Your task to perform on an android device: turn off notifications settings in the gmail app Image 0: 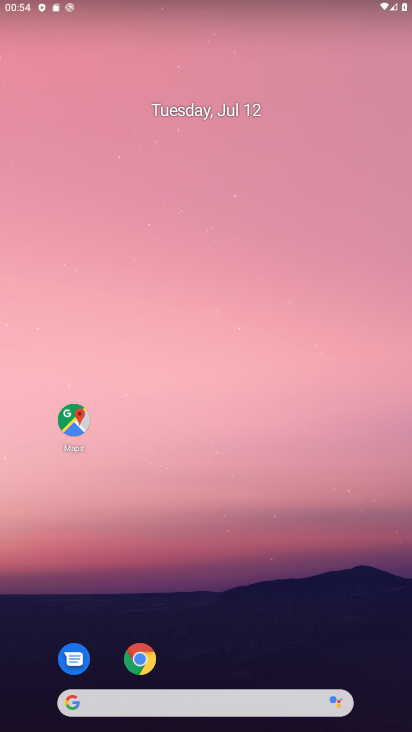
Step 0: drag from (203, 614) to (272, 5)
Your task to perform on an android device: turn off notifications settings in the gmail app Image 1: 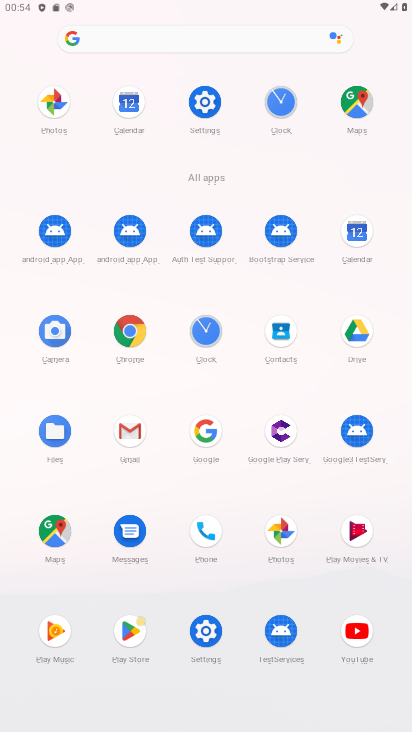
Step 1: click (121, 425)
Your task to perform on an android device: turn off notifications settings in the gmail app Image 2: 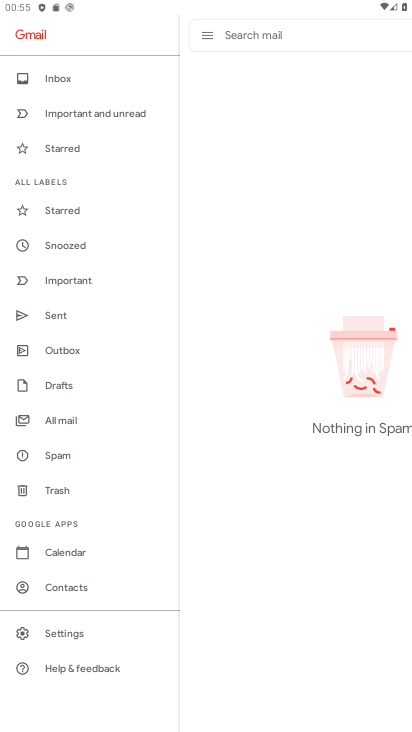
Step 2: drag from (94, 576) to (74, 215)
Your task to perform on an android device: turn off notifications settings in the gmail app Image 3: 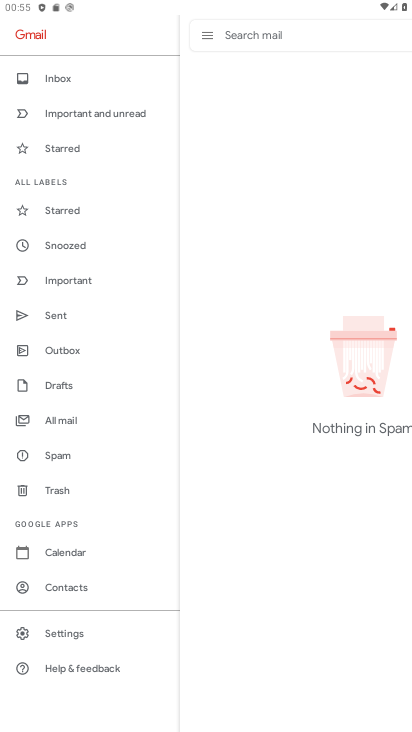
Step 3: click (65, 628)
Your task to perform on an android device: turn off notifications settings in the gmail app Image 4: 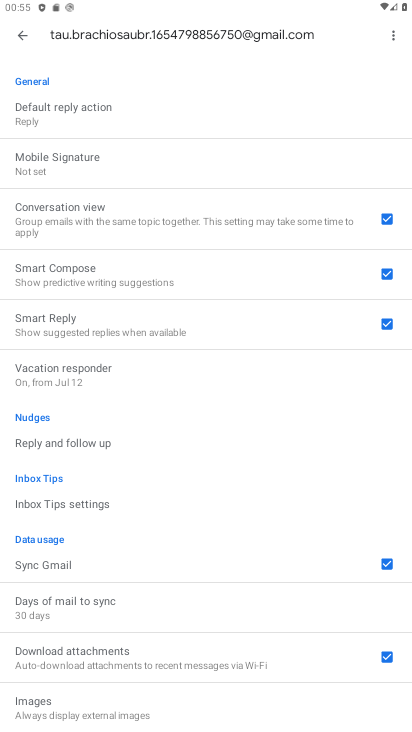
Step 4: drag from (148, 187) to (280, 725)
Your task to perform on an android device: turn off notifications settings in the gmail app Image 5: 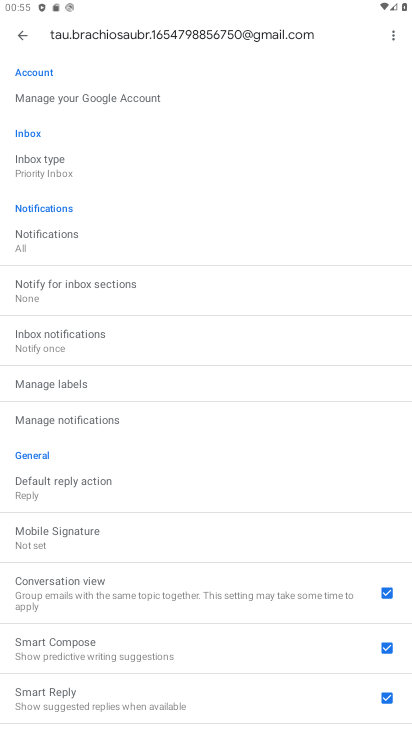
Step 5: click (118, 412)
Your task to perform on an android device: turn off notifications settings in the gmail app Image 6: 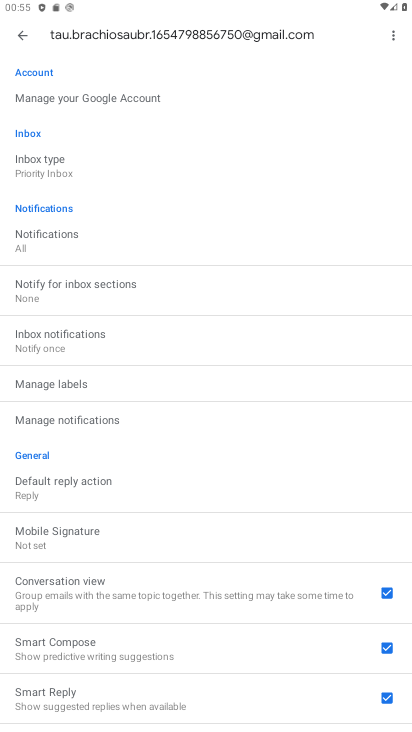
Step 6: click (118, 412)
Your task to perform on an android device: turn off notifications settings in the gmail app Image 7: 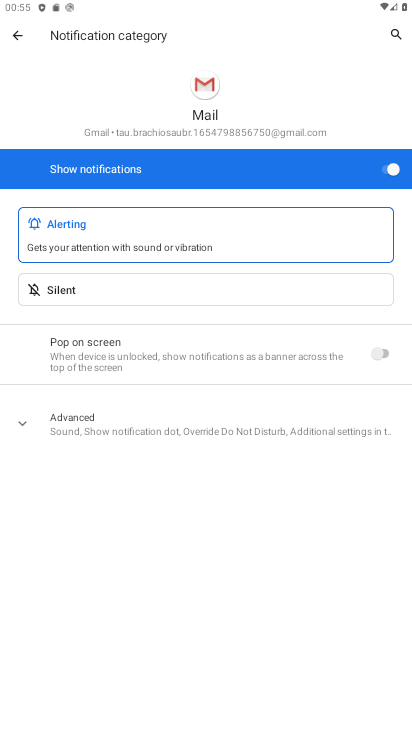
Step 7: click (386, 166)
Your task to perform on an android device: turn off notifications settings in the gmail app Image 8: 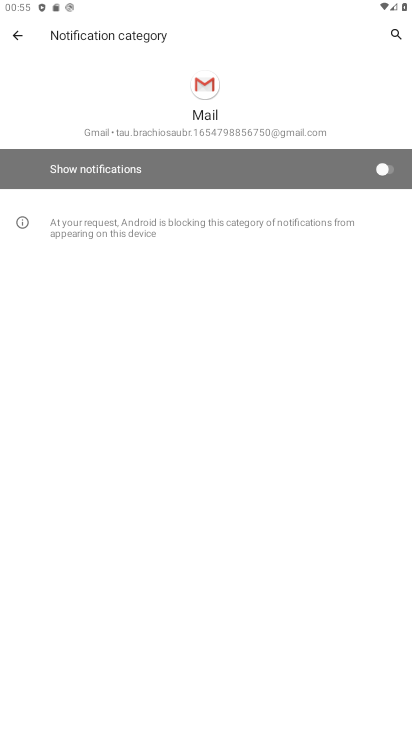
Step 8: task complete